Your task to perform on an android device: open a bookmark in the chrome app Image 0: 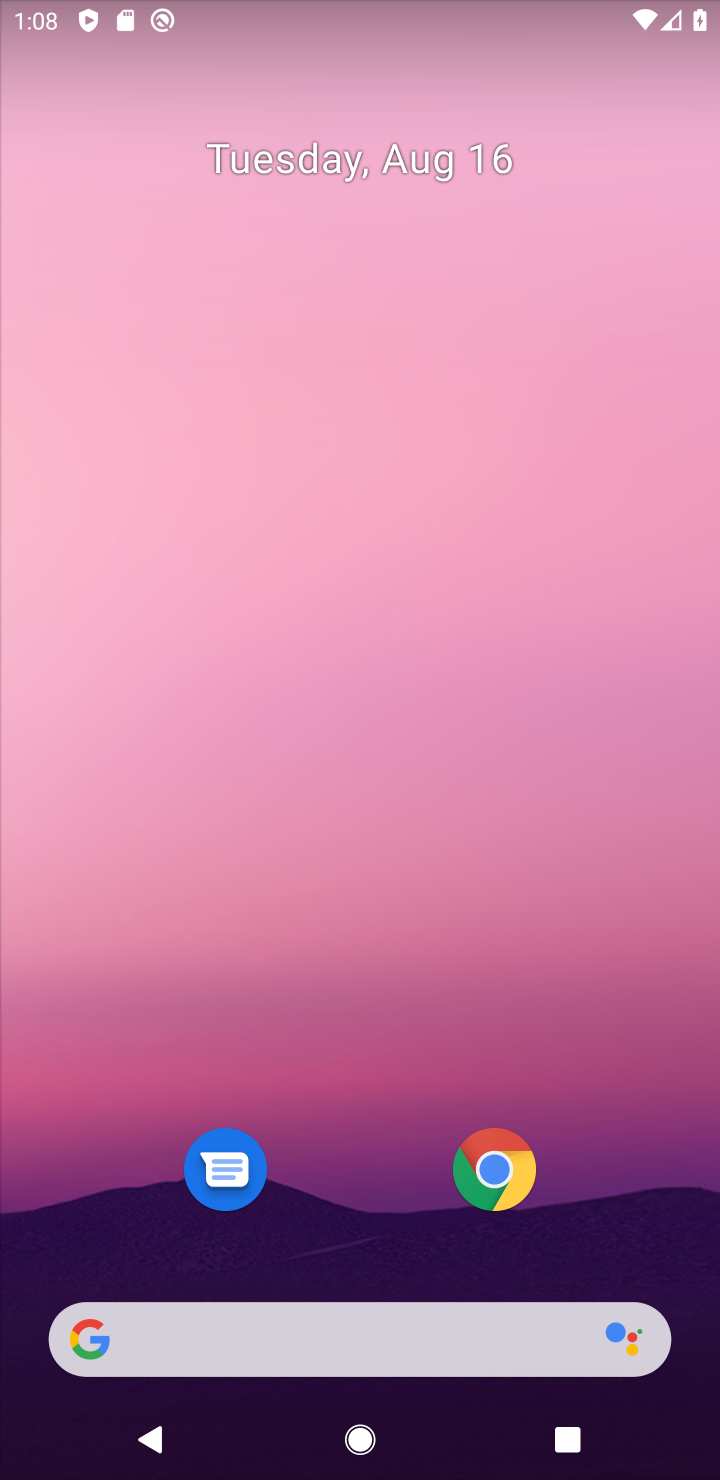
Step 0: click (504, 1164)
Your task to perform on an android device: open a bookmark in the chrome app Image 1: 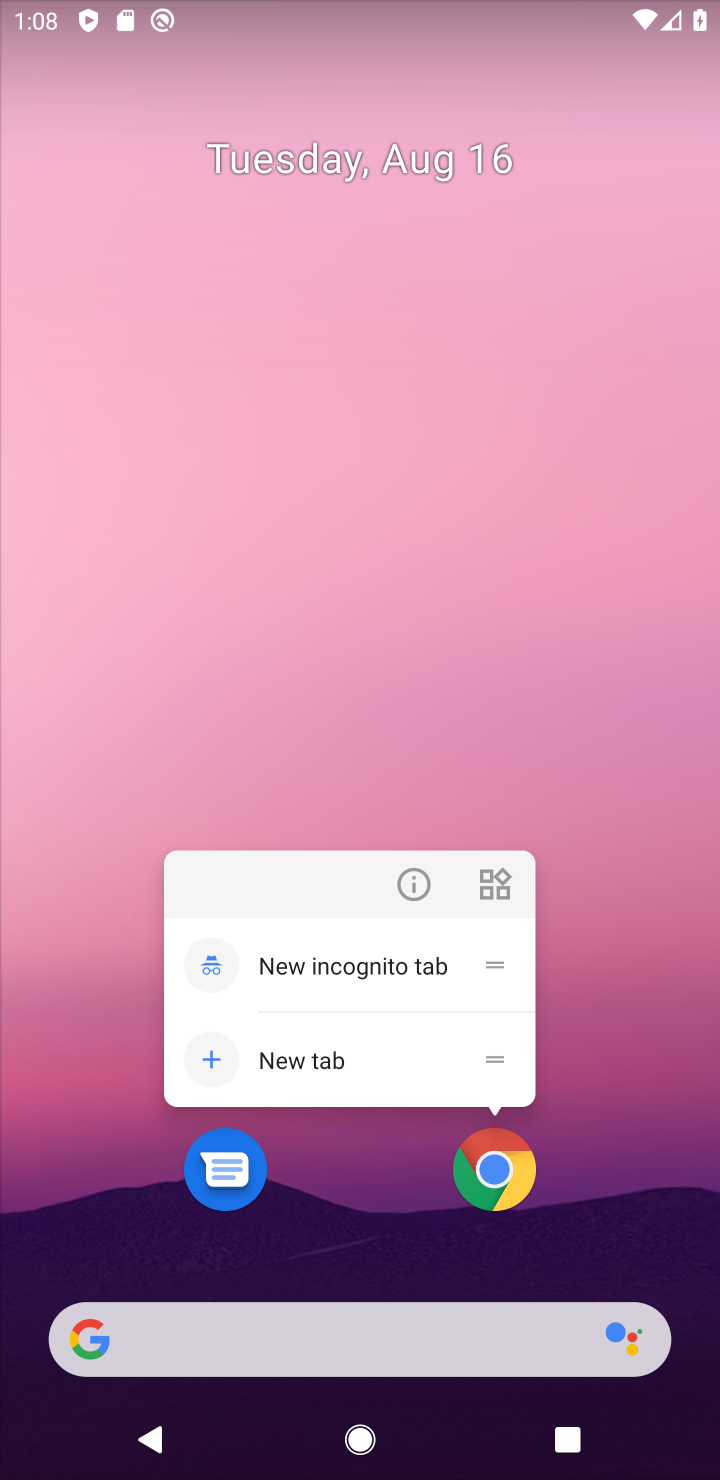
Step 1: click (504, 1164)
Your task to perform on an android device: open a bookmark in the chrome app Image 2: 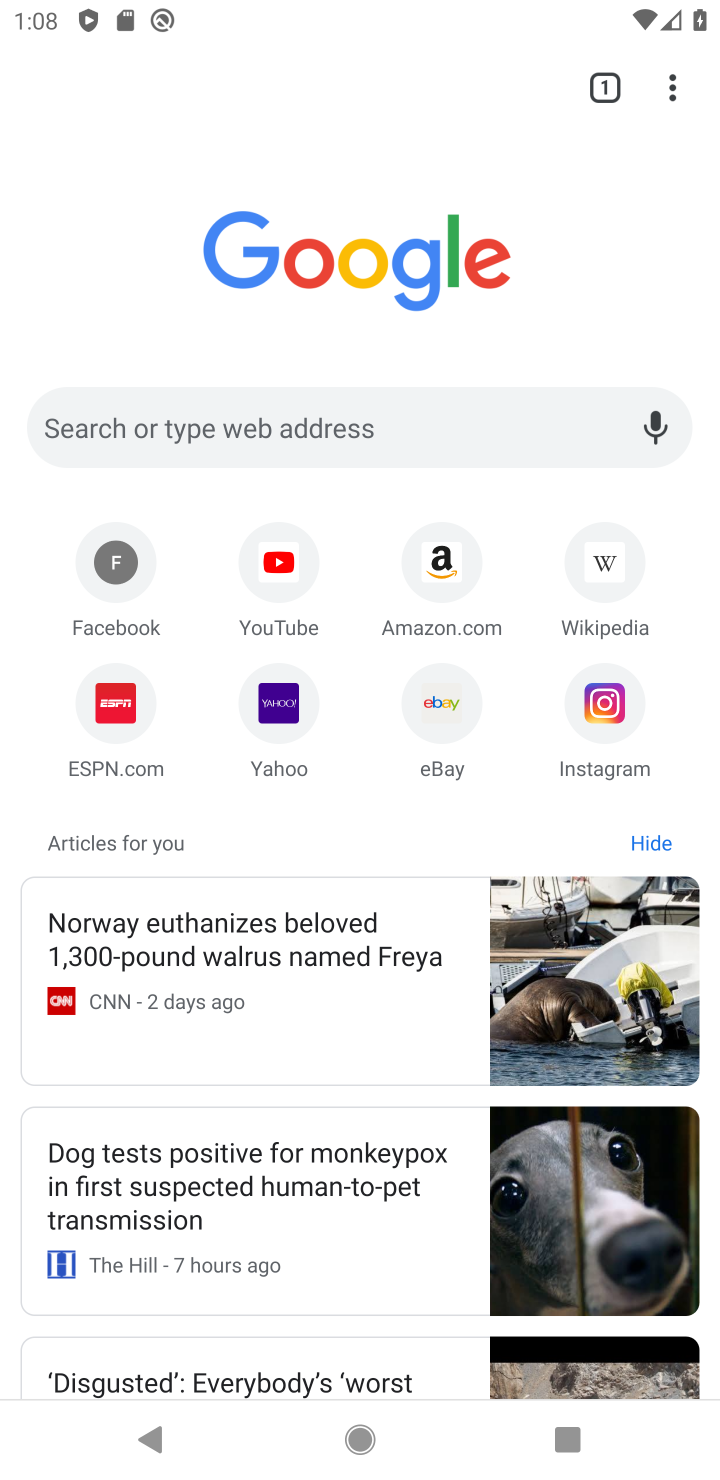
Step 2: click (692, 94)
Your task to perform on an android device: open a bookmark in the chrome app Image 3: 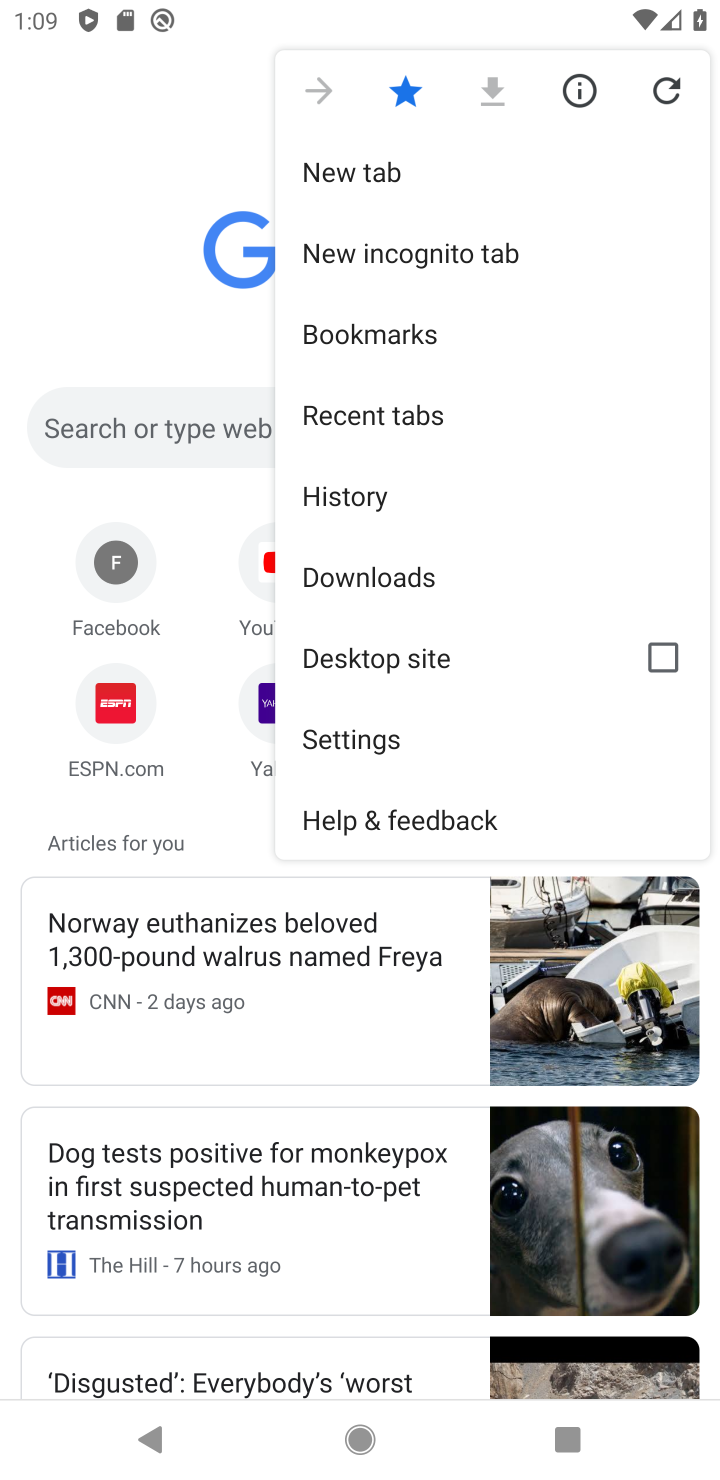
Step 3: click (370, 332)
Your task to perform on an android device: open a bookmark in the chrome app Image 4: 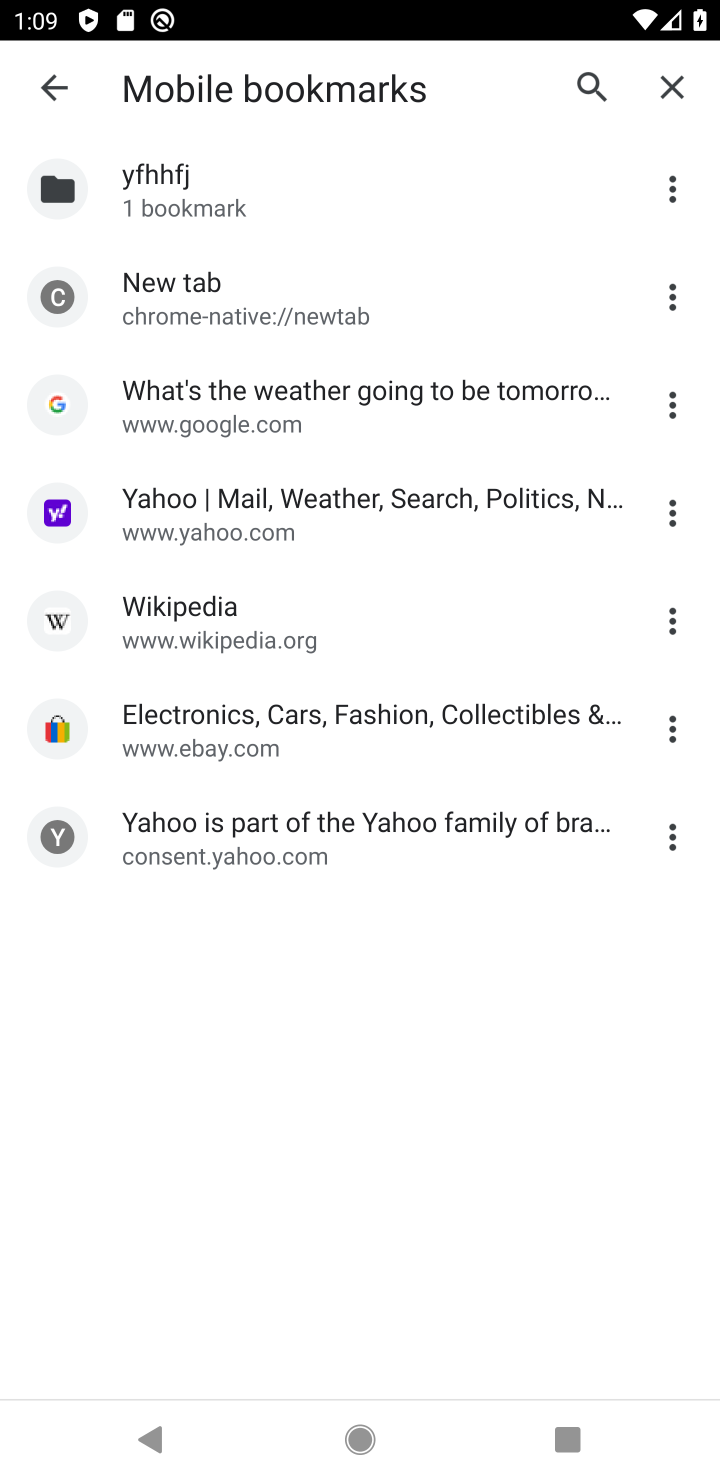
Step 4: task complete